Your task to perform on an android device: toggle sleep mode Image 0: 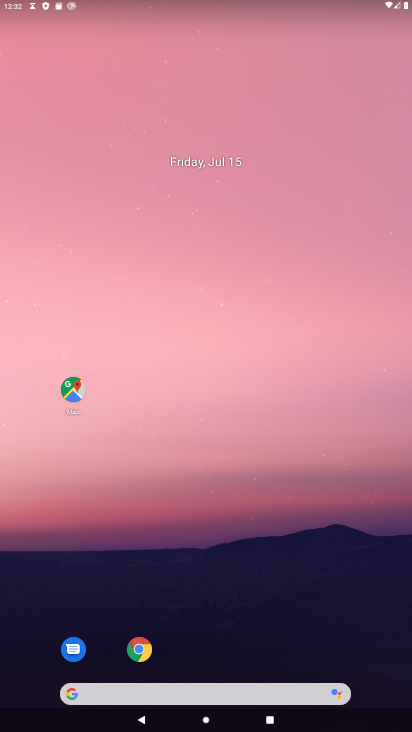
Step 0: drag from (212, 604) to (276, 50)
Your task to perform on an android device: toggle sleep mode Image 1: 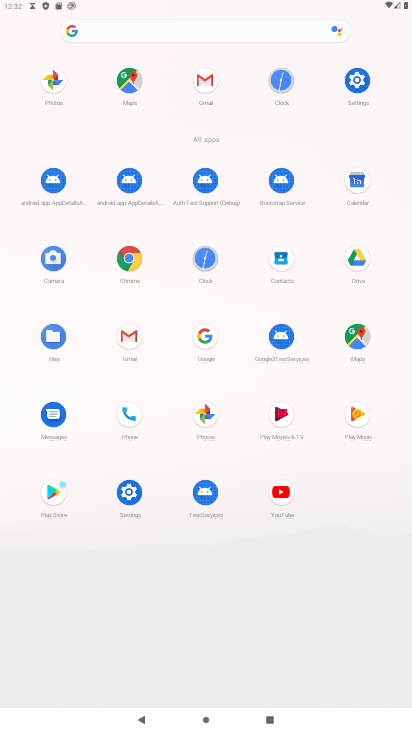
Step 1: click (126, 492)
Your task to perform on an android device: toggle sleep mode Image 2: 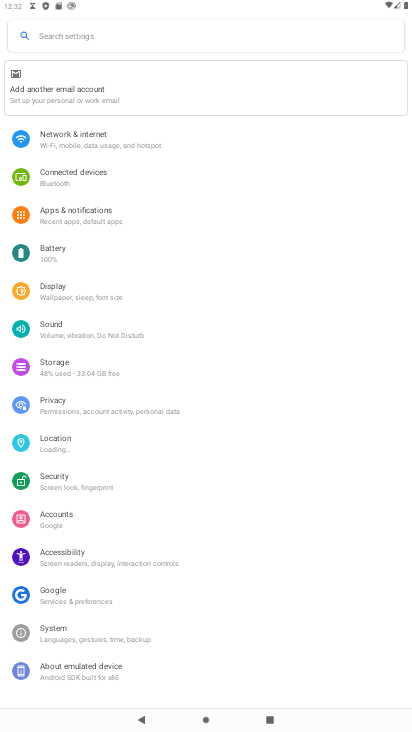
Step 2: click (63, 290)
Your task to perform on an android device: toggle sleep mode Image 3: 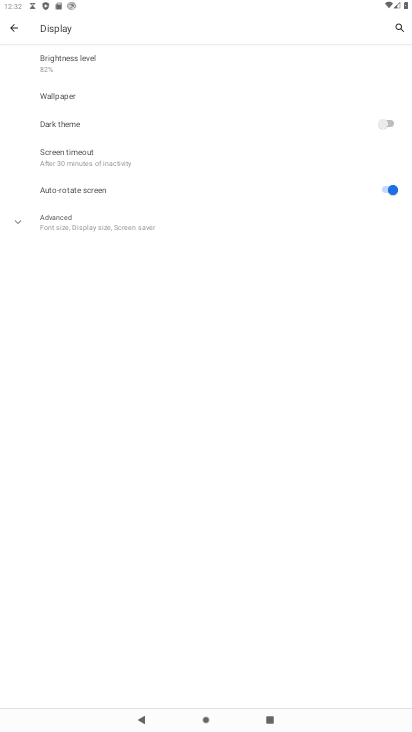
Step 3: click (140, 234)
Your task to perform on an android device: toggle sleep mode Image 4: 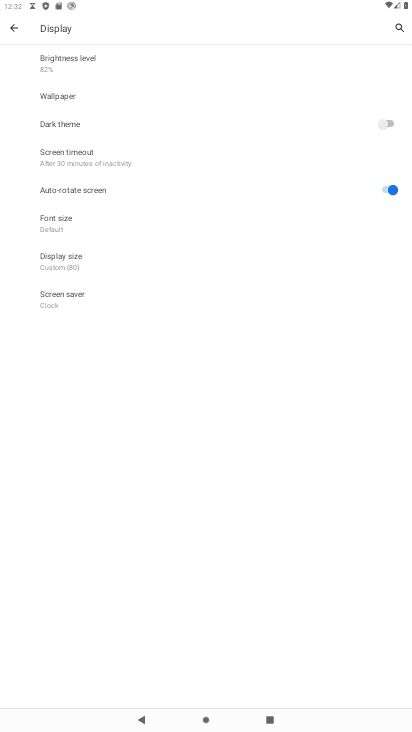
Step 4: task complete